Your task to perform on an android device: stop showing notifications on the lock screen Image 0: 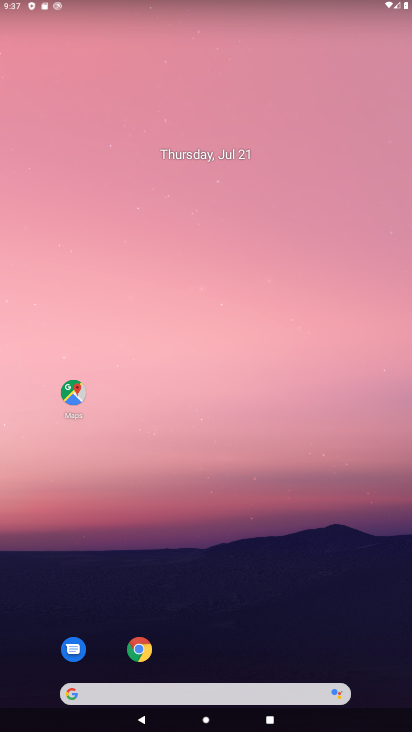
Step 0: drag from (223, 152) to (213, 82)
Your task to perform on an android device: stop showing notifications on the lock screen Image 1: 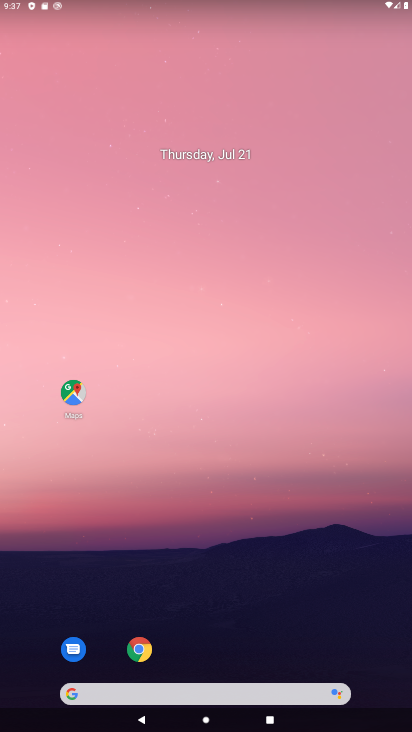
Step 1: drag from (231, 492) to (185, 50)
Your task to perform on an android device: stop showing notifications on the lock screen Image 2: 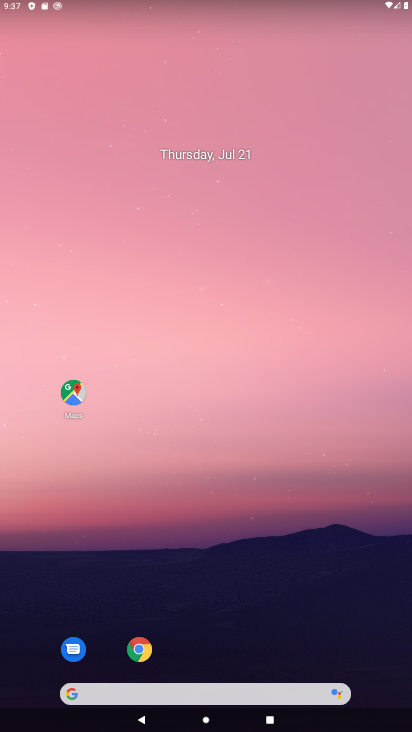
Step 2: drag from (218, 470) to (239, 49)
Your task to perform on an android device: stop showing notifications on the lock screen Image 3: 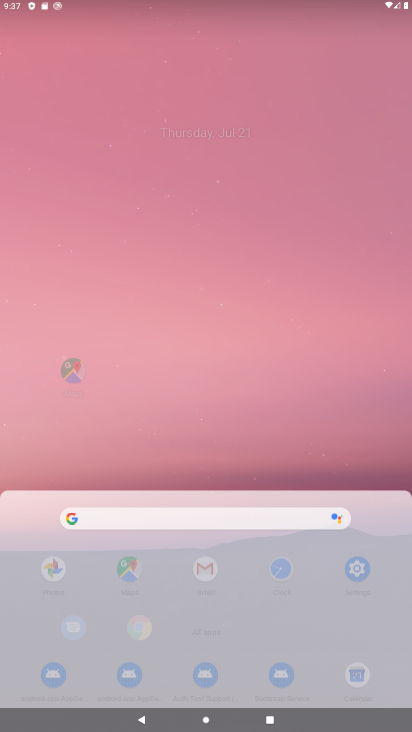
Step 3: drag from (236, 453) to (195, 49)
Your task to perform on an android device: stop showing notifications on the lock screen Image 4: 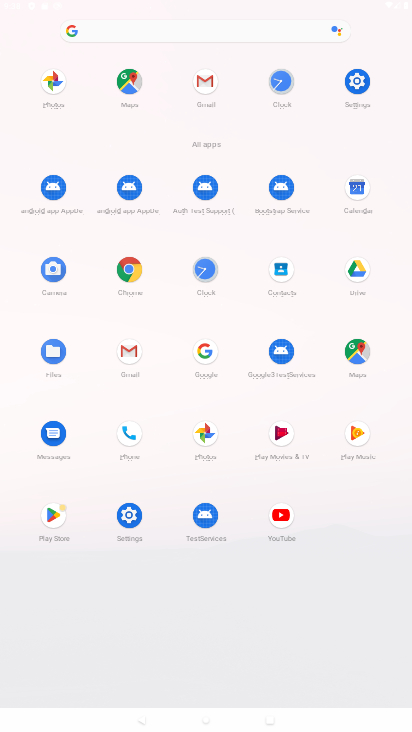
Step 4: drag from (201, 416) to (186, 78)
Your task to perform on an android device: stop showing notifications on the lock screen Image 5: 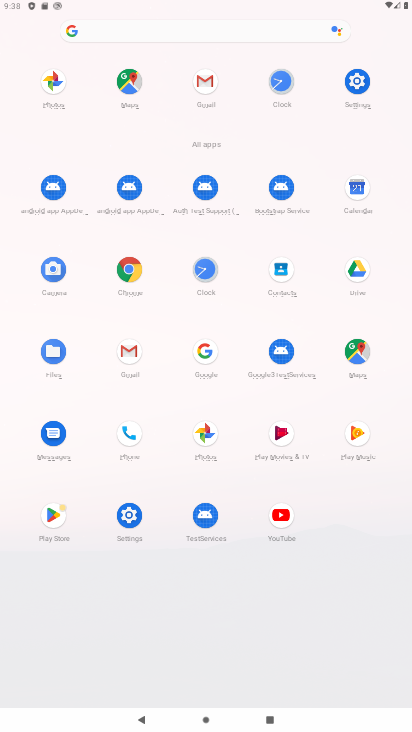
Step 5: click (213, 267)
Your task to perform on an android device: stop showing notifications on the lock screen Image 6: 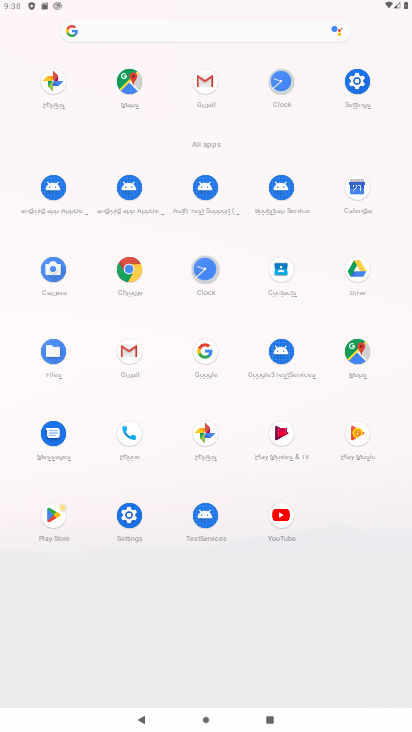
Step 6: click (209, 267)
Your task to perform on an android device: stop showing notifications on the lock screen Image 7: 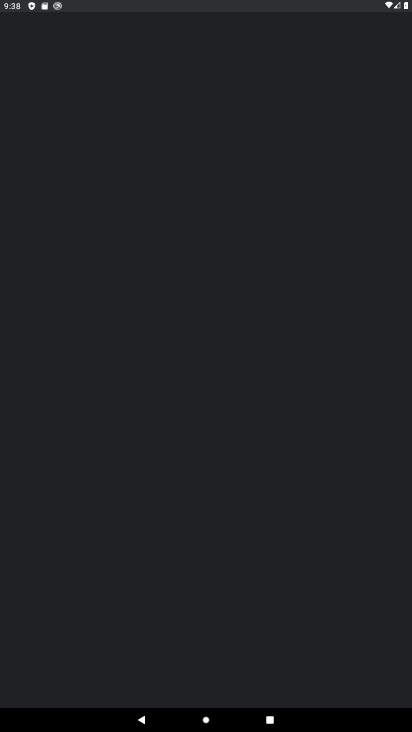
Step 7: press back button
Your task to perform on an android device: stop showing notifications on the lock screen Image 8: 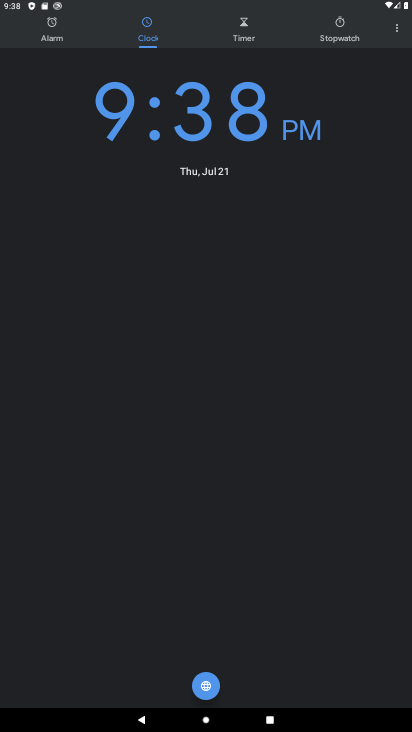
Step 8: press back button
Your task to perform on an android device: stop showing notifications on the lock screen Image 9: 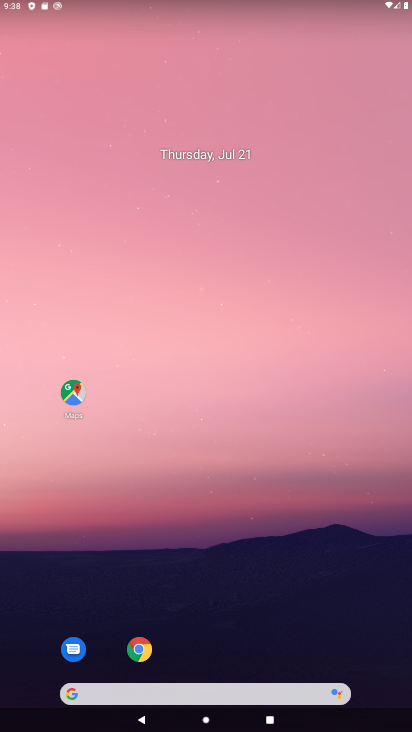
Step 9: press home button
Your task to perform on an android device: stop showing notifications on the lock screen Image 10: 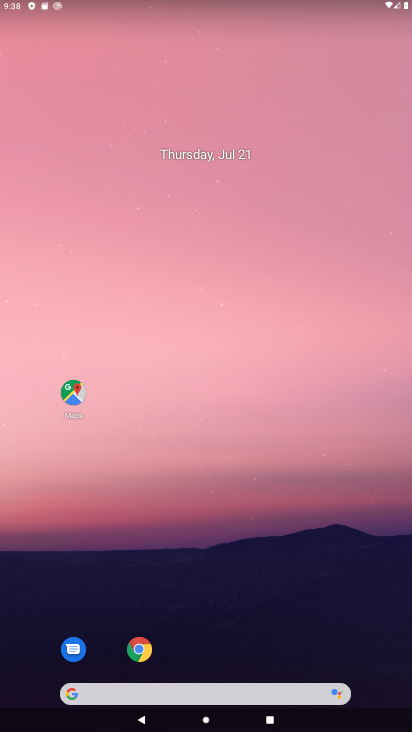
Step 10: drag from (372, 576) to (277, 50)
Your task to perform on an android device: stop showing notifications on the lock screen Image 11: 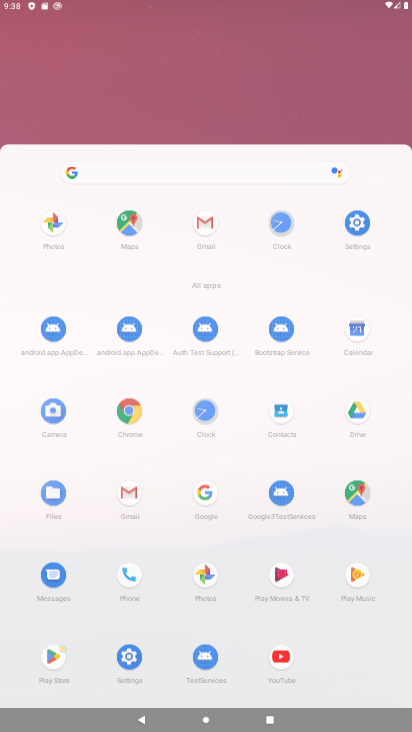
Step 11: drag from (259, 516) to (205, 167)
Your task to perform on an android device: stop showing notifications on the lock screen Image 12: 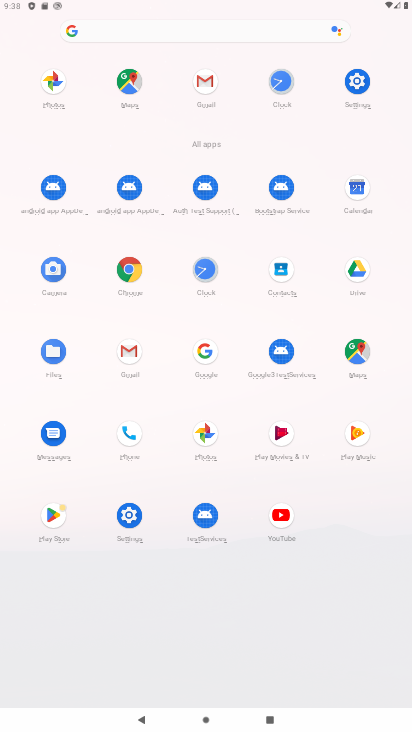
Step 12: click (357, 67)
Your task to perform on an android device: stop showing notifications on the lock screen Image 13: 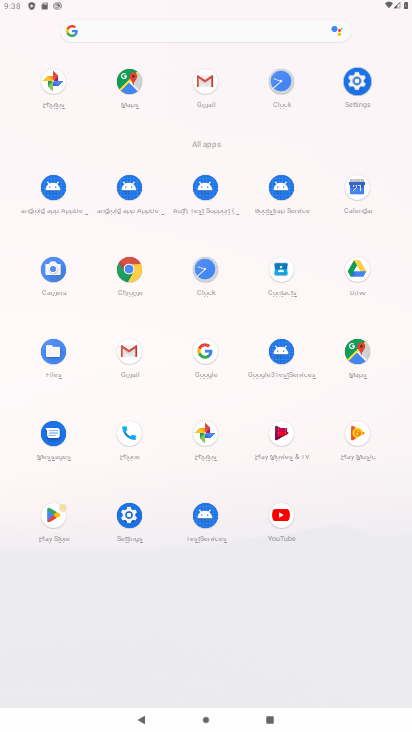
Step 13: click (354, 77)
Your task to perform on an android device: stop showing notifications on the lock screen Image 14: 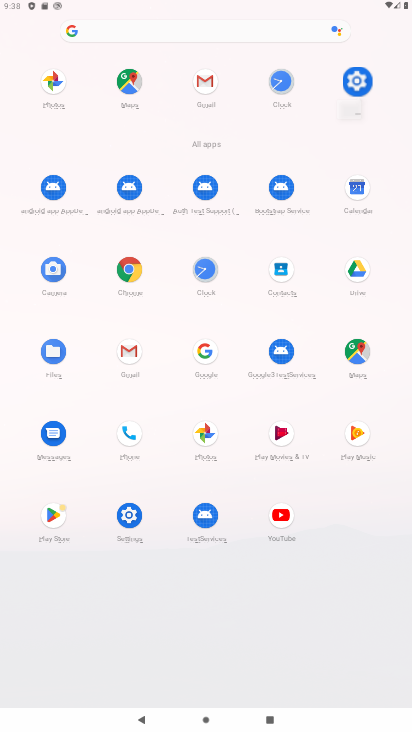
Step 14: click (355, 79)
Your task to perform on an android device: stop showing notifications on the lock screen Image 15: 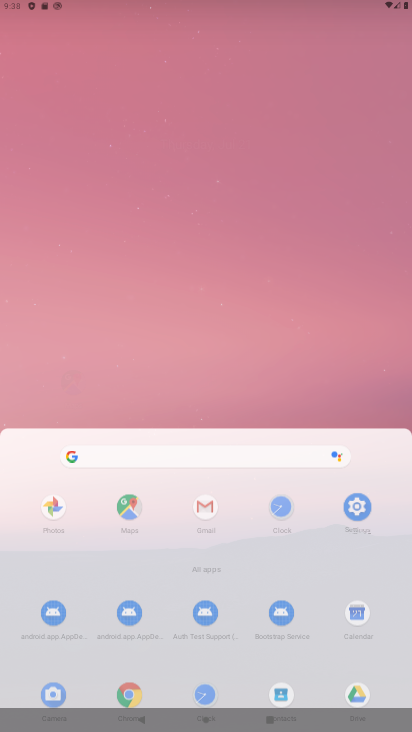
Step 15: click (364, 81)
Your task to perform on an android device: stop showing notifications on the lock screen Image 16: 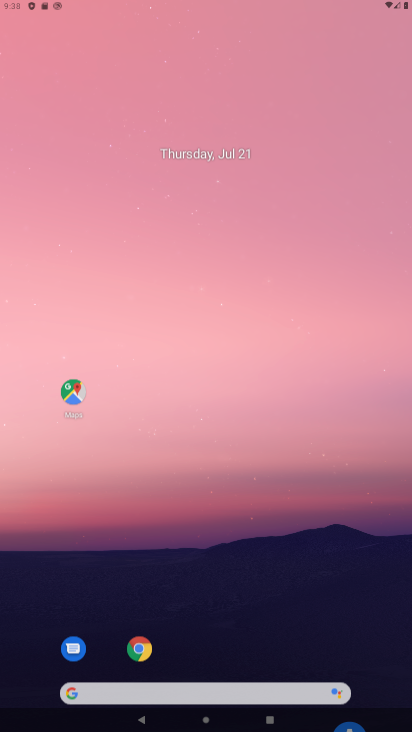
Step 16: click (368, 80)
Your task to perform on an android device: stop showing notifications on the lock screen Image 17: 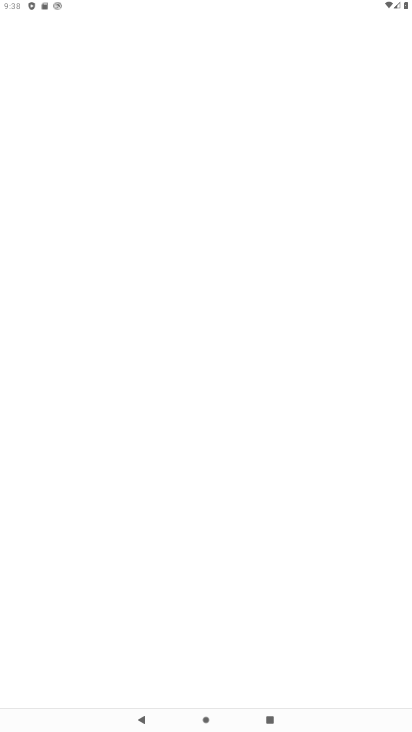
Step 17: drag from (231, 641) to (178, 35)
Your task to perform on an android device: stop showing notifications on the lock screen Image 18: 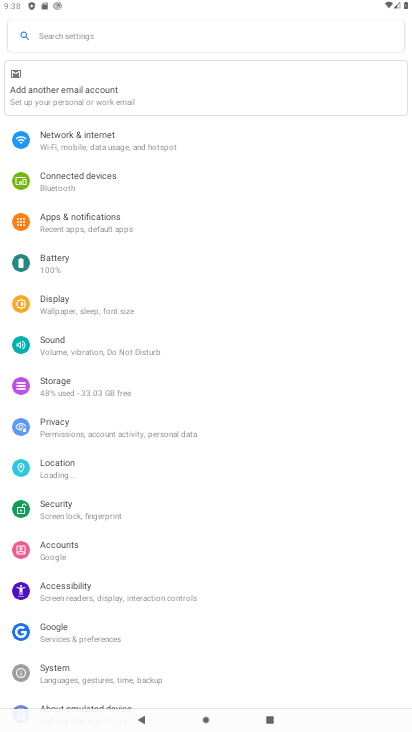
Step 18: click (77, 219)
Your task to perform on an android device: stop showing notifications on the lock screen Image 19: 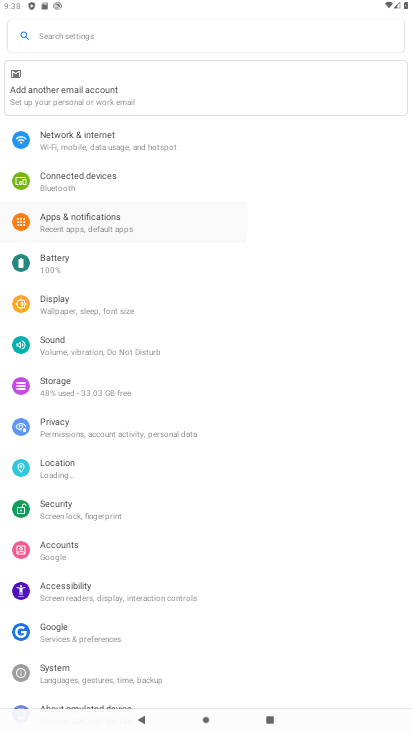
Step 19: click (78, 220)
Your task to perform on an android device: stop showing notifications on the lock screen Image 20: 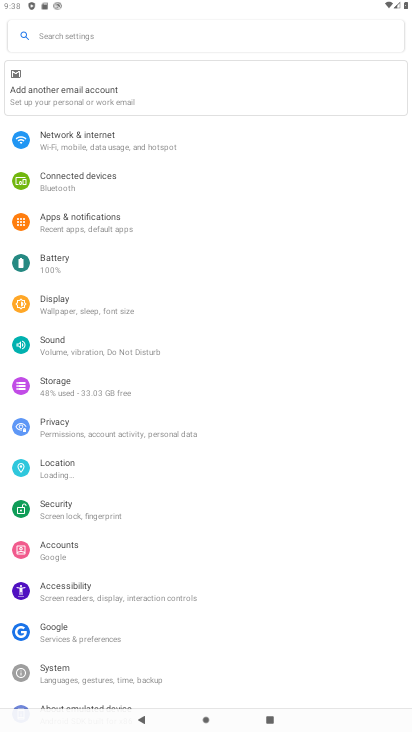
Step 20: click (91, 216)
Your task to perform on an android device: stop showing notifications on the lock screen Image 21: 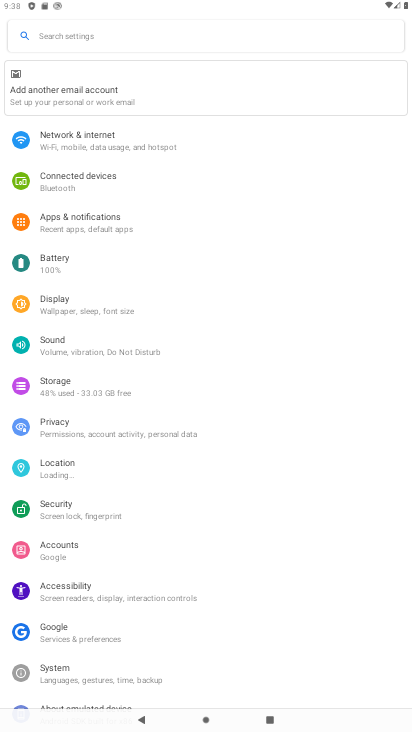
Step 21: click (94, 213)
Your task to perform on an android device: stop showing notifications on the lock screen Image 22: 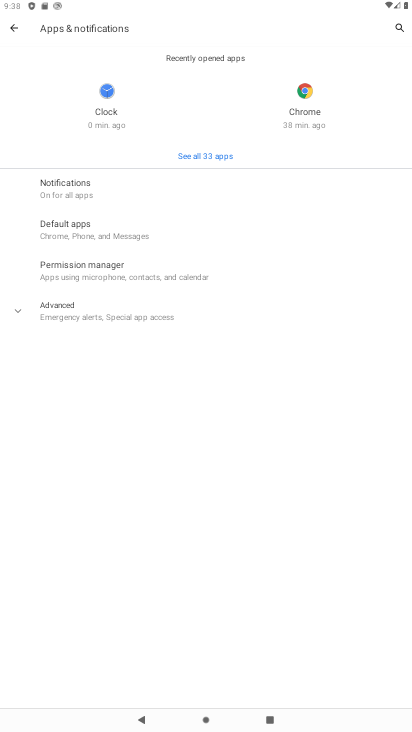
Step 22: click (69, 186)
Your task to perform on an android device: stop showing notifications on the lock screen Image 23: 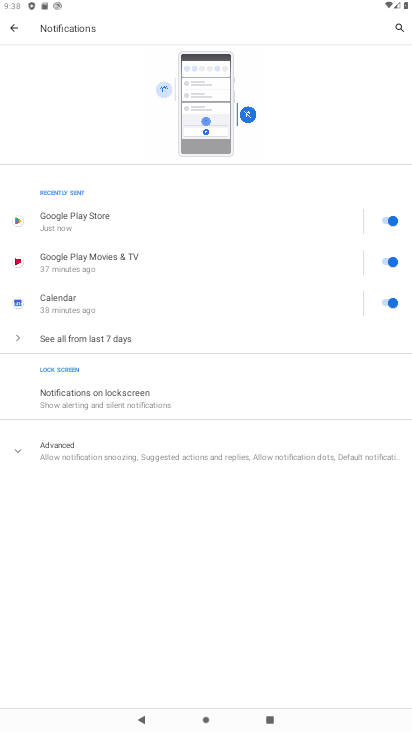
Step 23: click (67, 393)
Your task to perform on an android device: stop showing notifications on the lock screen Image 24: 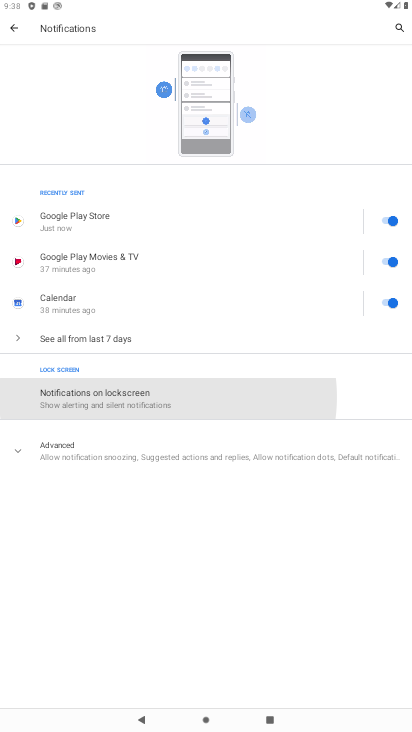
Step 24: click (67, 394)
Your task to perform on an android device: stop showing notifications on the lock screen Image 25: 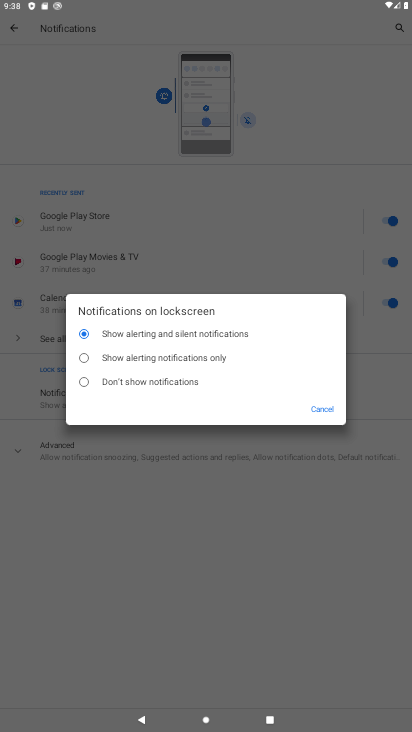
Step 25: click (77, 382)
Your task to perform on an android device: stop showing notifications on the lock screen Image 26: 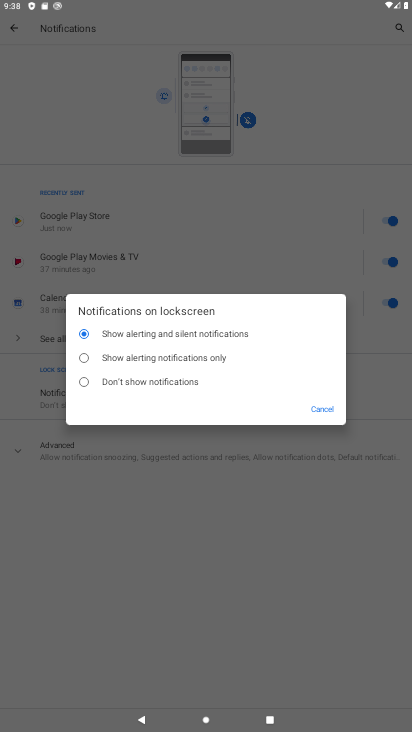
Step 26: click (86, 376)
Your task to perform on an android device: stop showing notifications on the lock screen Image 27: 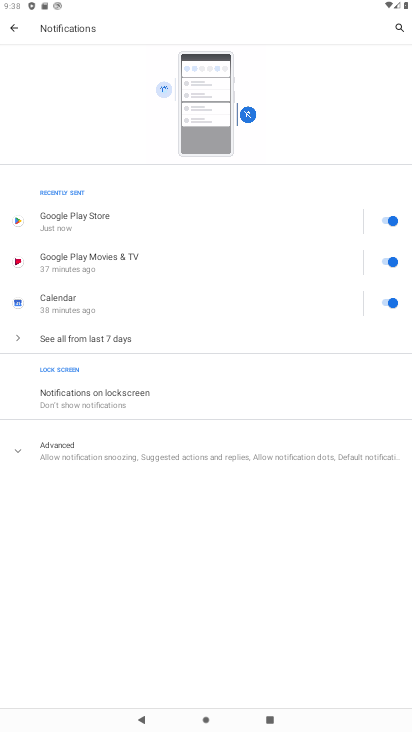
Step 27: task complete